Your task to perform on an android device: Open Youtube and go to the subscriptions tab Image 0: 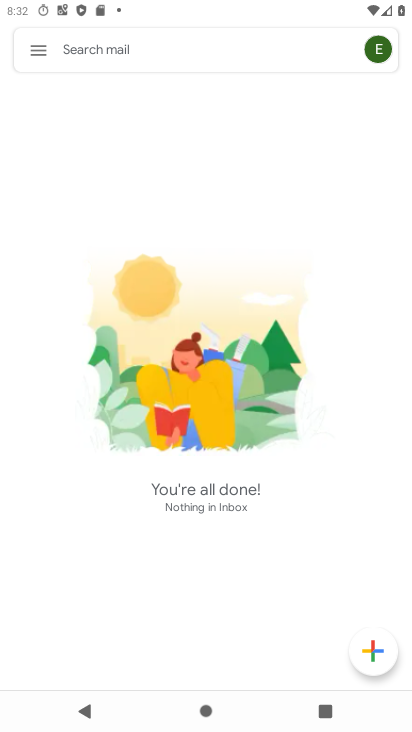
Step 0: press home button
Your task to perform on an android device: Open Youtube and go to the subscriptions tab Image 1: 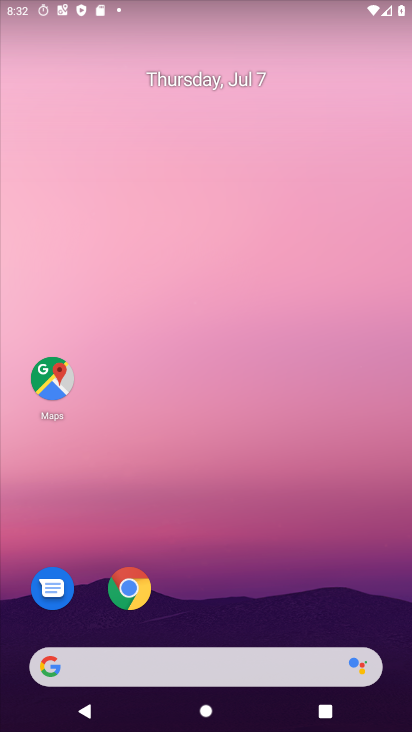
Step 1: drag from (179, 666) to (341, 59)
Your task to perform on an android device: Open Youtube and go to the subscriptions tab Image 2: 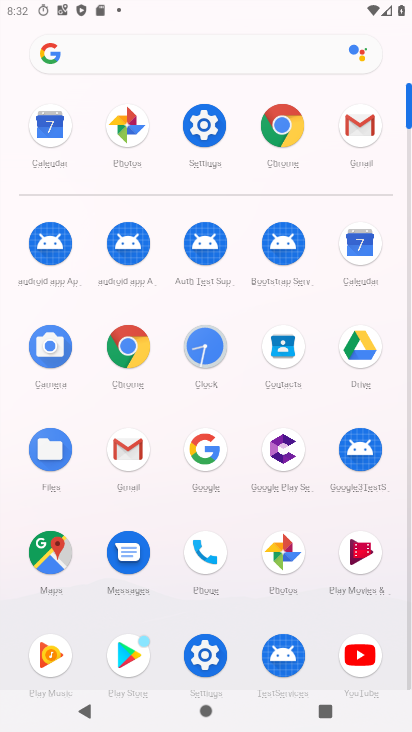
Step 2: click (354, 660)
Your task to perform on an android device: Open Youtube and go to the subscriptions tab Image 3: 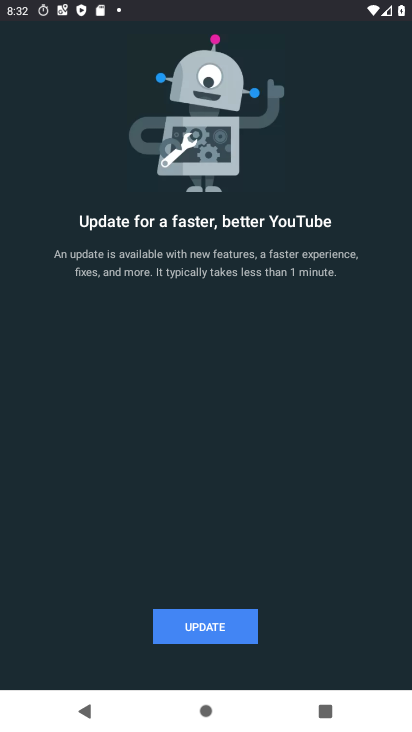
Step 3: click (187, 636)
Your task to perform on an android device: Open Youtube and go to the subscriptions tab Image 4: 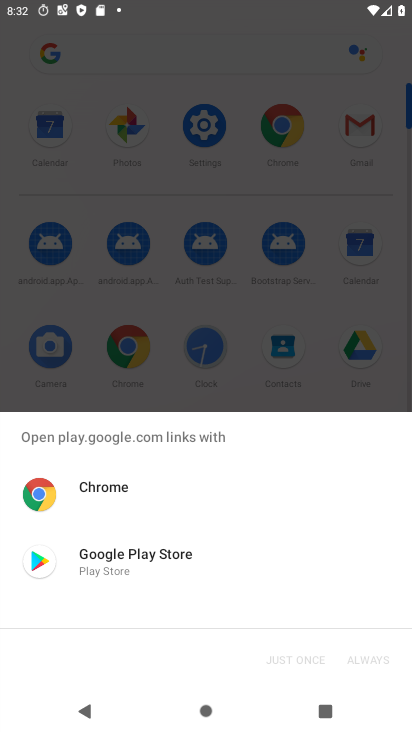
Step 4: click (141, 557)
Your task to perform on an android device: Open Youtube and go to the subscriptions tab Image 5: 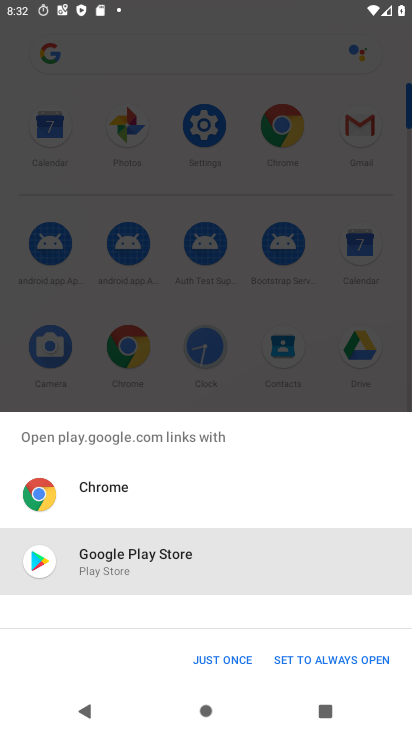
Step 5: click (334, 663)
Your task to perform on an android device: Open Youtube and go to the subscriptions tab Image 6: 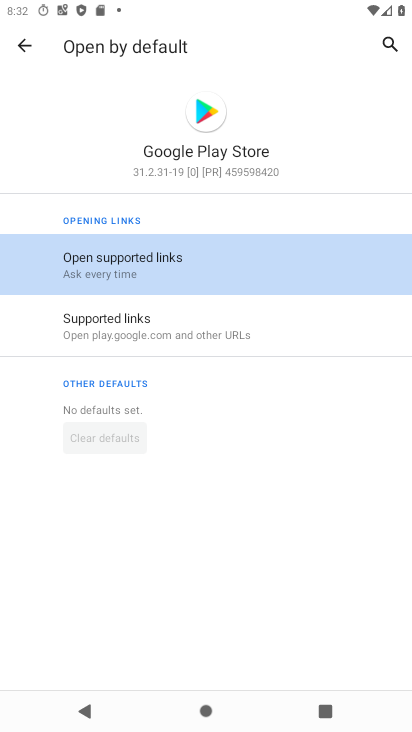
Step 6: press back button
Your task to perform on an android device: Open Youtube and go to the subscriptions tab Image 7: 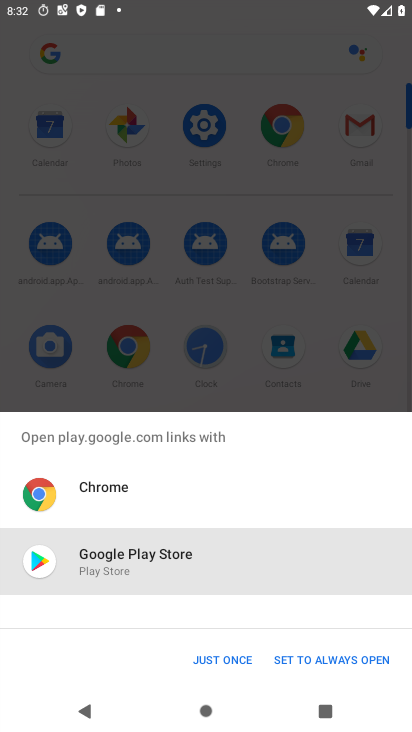
Step 7: click (207, 663)
Your task to perform on an android device: Open Youtube and go to the subscriptions tab Image 8: 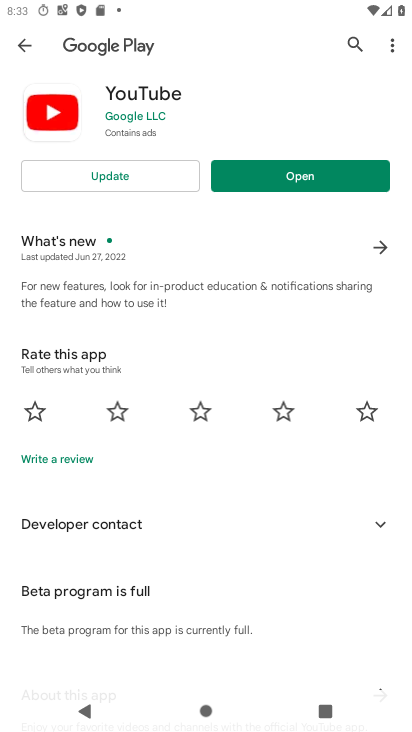
Step 8: click (154, 170)
Your task to perform on an android device: Open Youtube and go to the subscriptions tab Image 9: 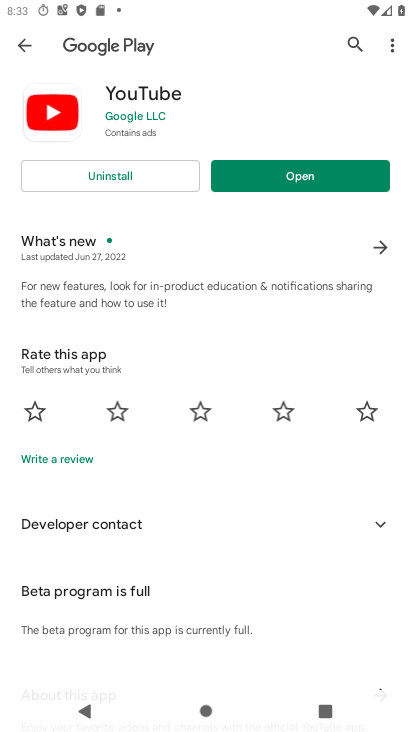
Step 9: click (290, 171)
Your task to perform on an android device: Open Youtube and go to the subscriptions tab Image 10: 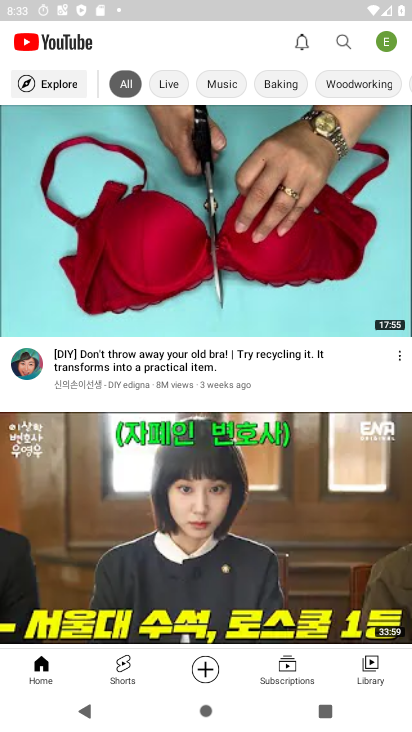
Step 10: click (290, 674)
Your task to perform on an android device: Open Youtube and go to the subscriptions tab Image 11: 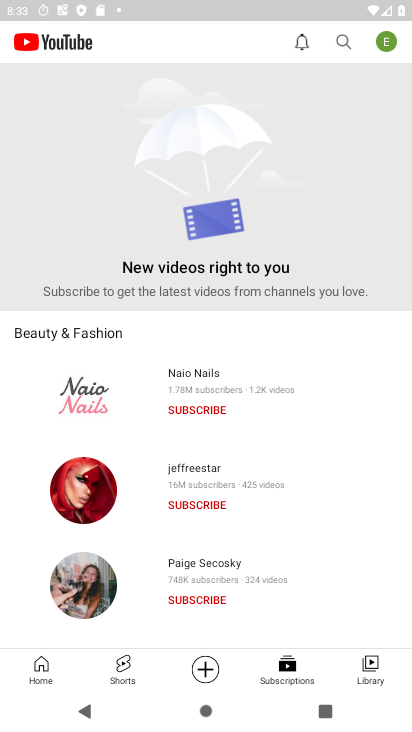
Step 11: task complete